Your task to perform on an android device: Go to Yahoo.com Image 0: 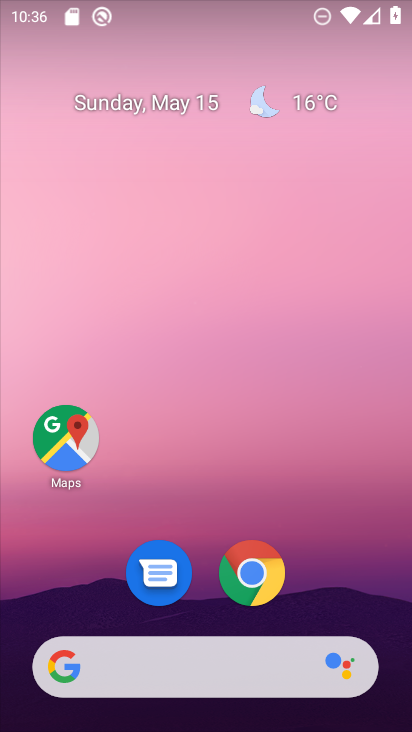
Step 0: press home button
Your task to perform on an android device: Go to Yahoo.com Image 1: 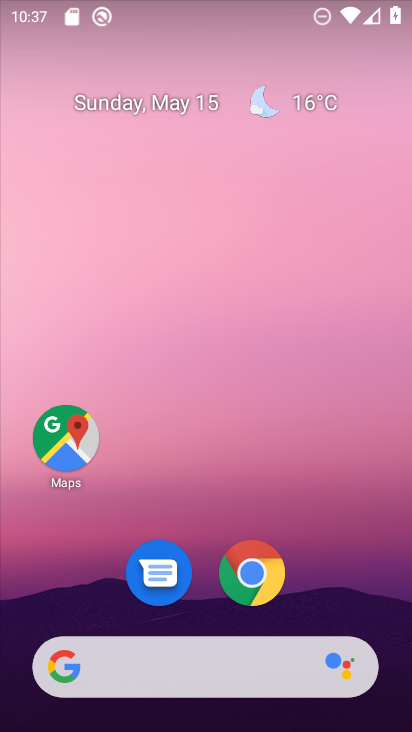
Step 1: click (265, 583)
Your task to perform on an android device: Go to Yahoo.com Image 2: 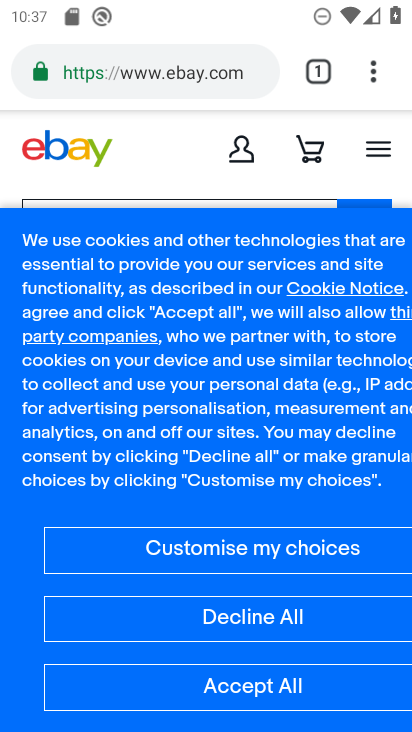
Step 2: click (212, 80)
Your task to perform on an android device: Go to Yahoo.com Image 3: 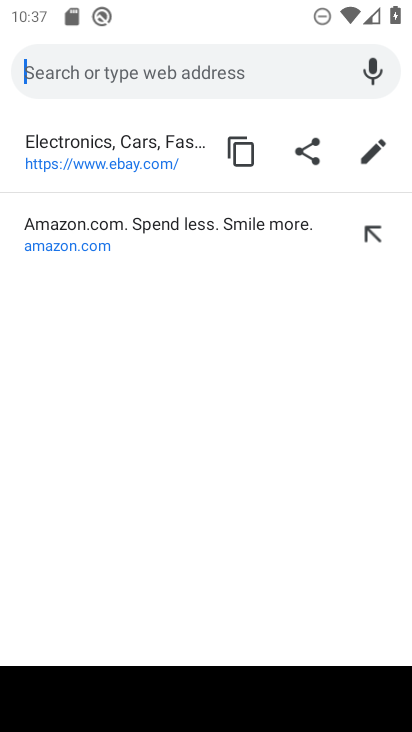
Step 3: type "Yahoo.com"
Your task to perform on an android device: Go to Yahoo.com Image 4: 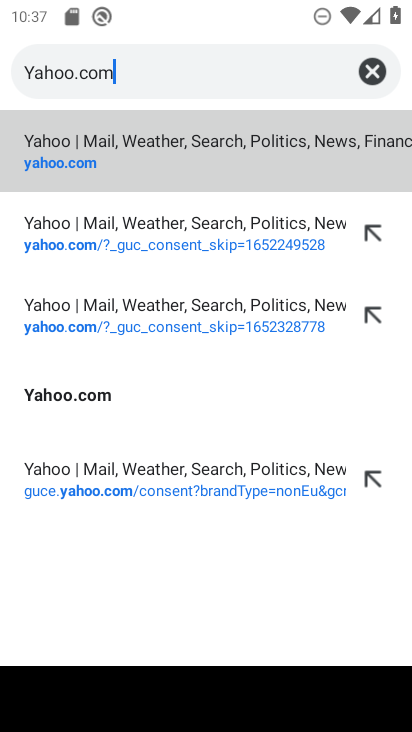
Step 4: click (108, 145)
Your task to perform on an android device: Go to Yahoo.com Image 5: 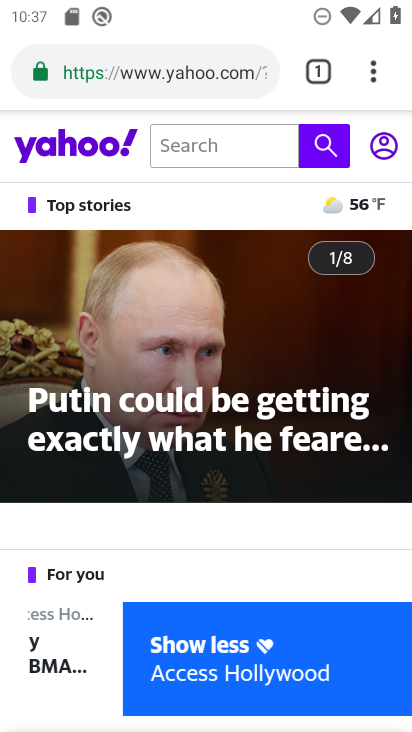
Step 5: task complete